Your task to perform on an android device: check out phone information Image 0: 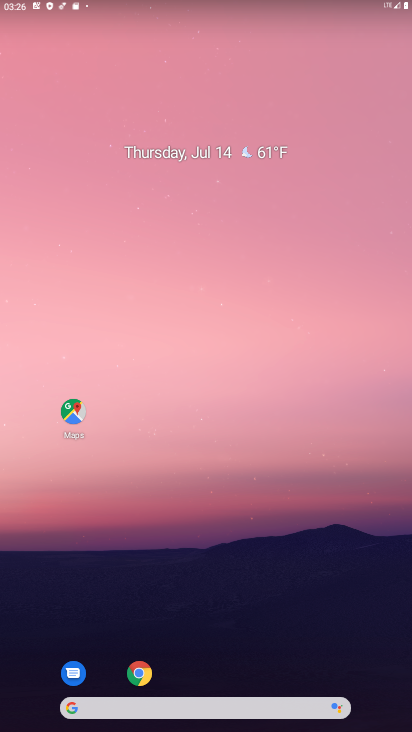
Step 0: drag from (243, 691) to (290, 190)
Your task to perform on an android device: check out phone information Image 1: 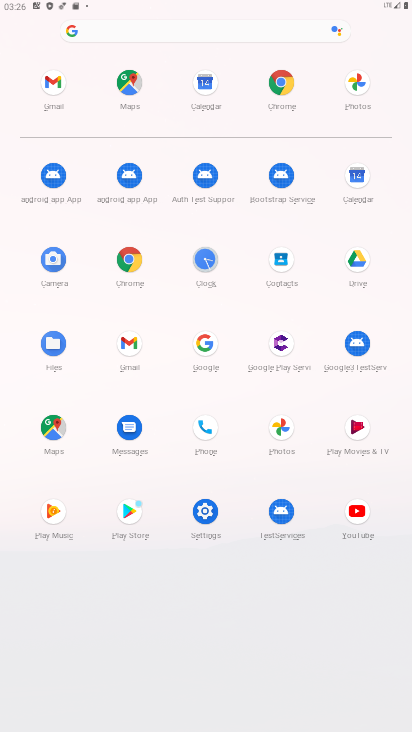
Step 1: click (204, 533)
Your task to perform on an android device: check out phone information Image 2: 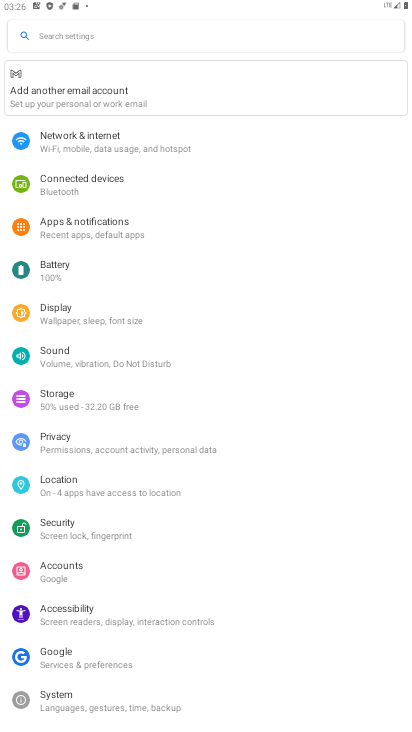
Step 2: click (135, 678)
Your task to perform on an android device: check out phone information Image 3: 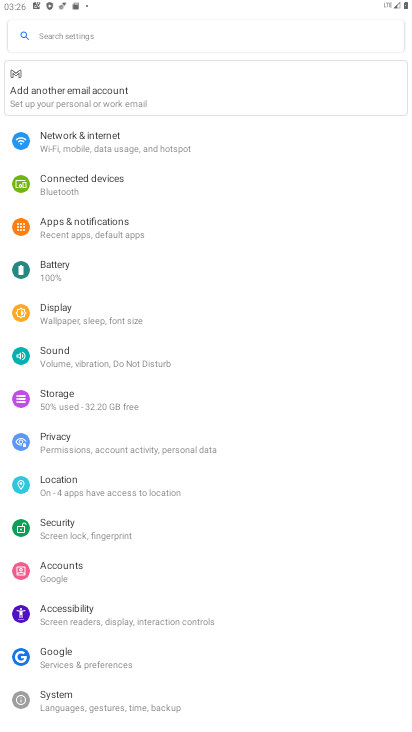
Step 3: task complete